Your task to perform on an android device: check battery use Image 0: 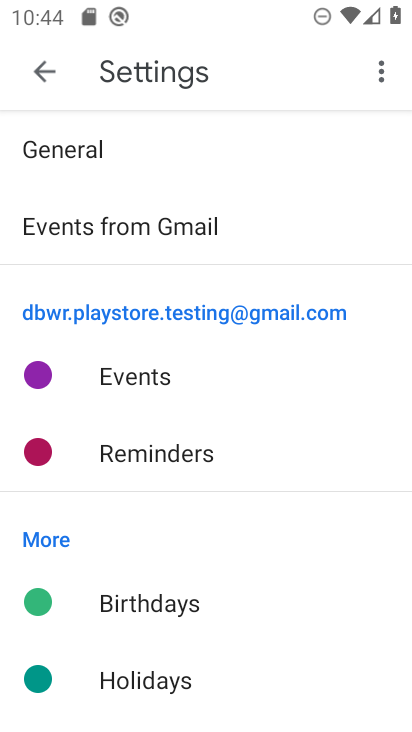
Step 0: press home button
Your task to perform on an android device: check battery use Image 1: 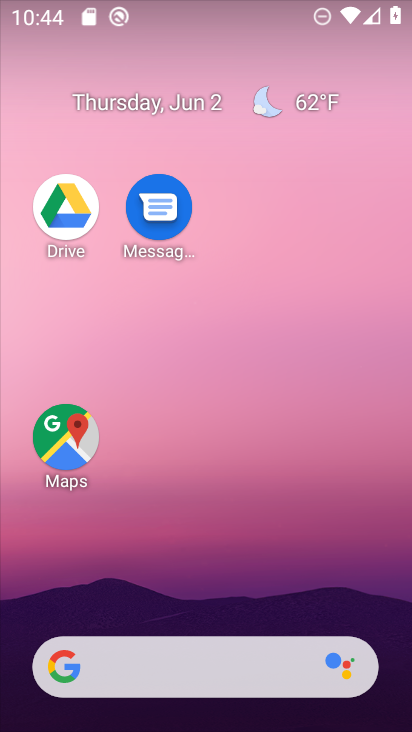
Step 1: drag from (210, 632) to (77, 15)
Your task to perform on an android device: check battery use Image 2: 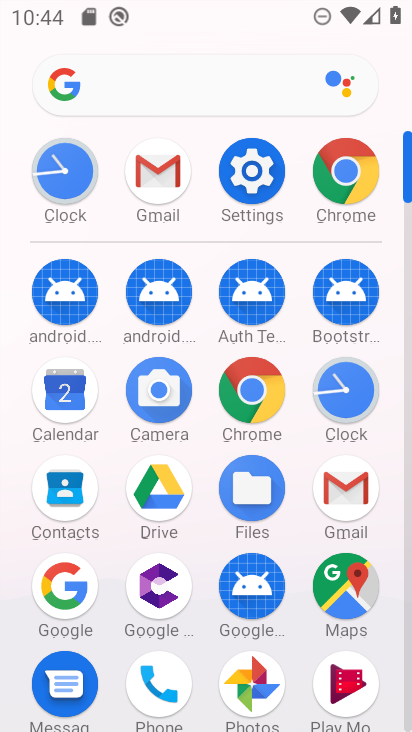
Step 2: click (227, 179)
Your task to perform on an android device: check battery use Image 3: 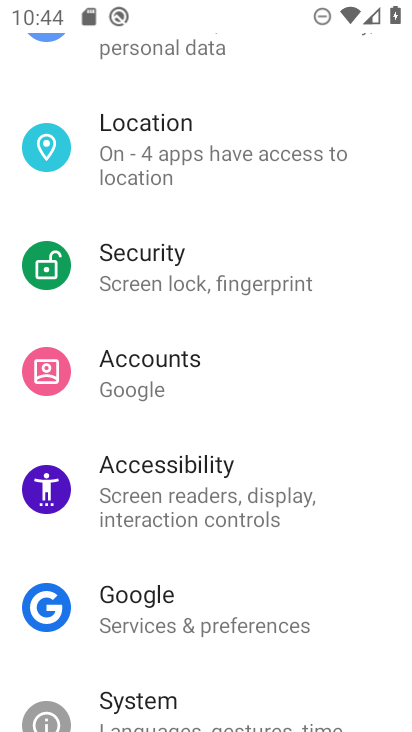
Step 3: drag from (219, 585) to (143, 131)
Your task to perform on an android device: check battery use Image 4: 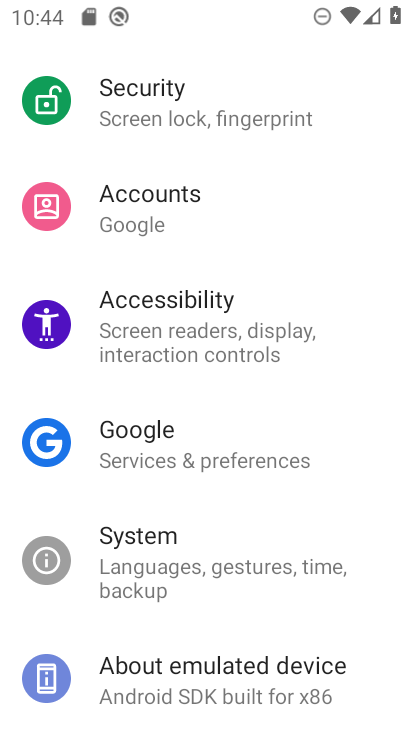
Step 4: drag from (155, 158) to (161, 677)
Your task to perform on an android device: check battery use Image 5: 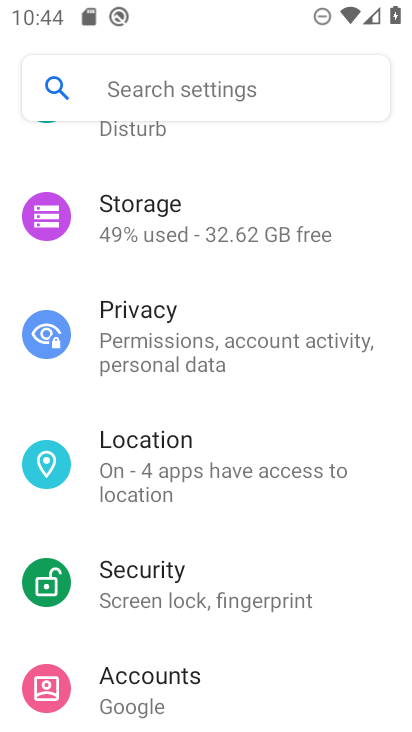
Step 5: drag from (168, 149) to (166, 548)
Your task to perform on an android device: check battery use Image 6: 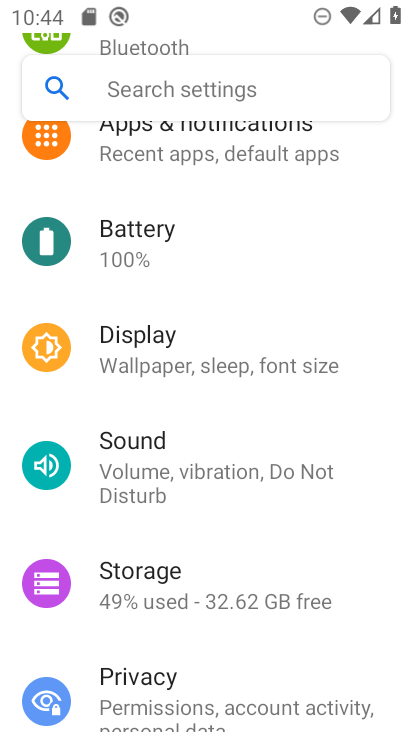
Step 6: click (156, 256)
Your task to perform on an android device: check battery use Image 7: 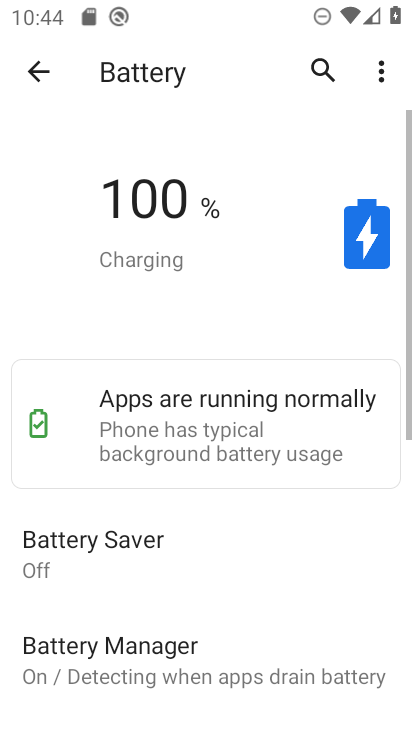
Step 7: click (381, 68)
Your task to perform on an android device: check battery use Image 8: 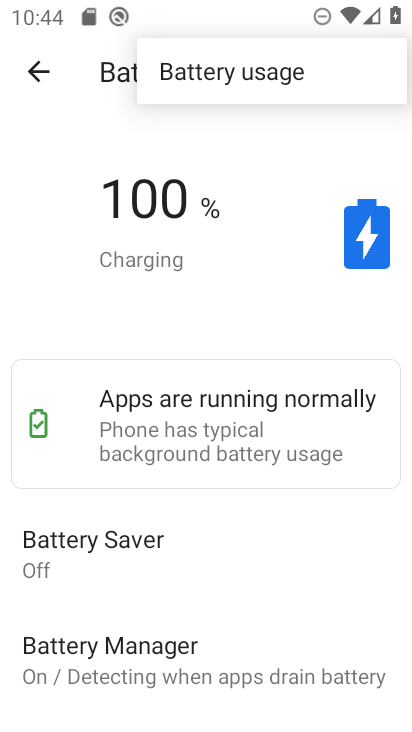
Step 8: click (310, 77)
Your task to perform on an android device: check battery use Image 9: 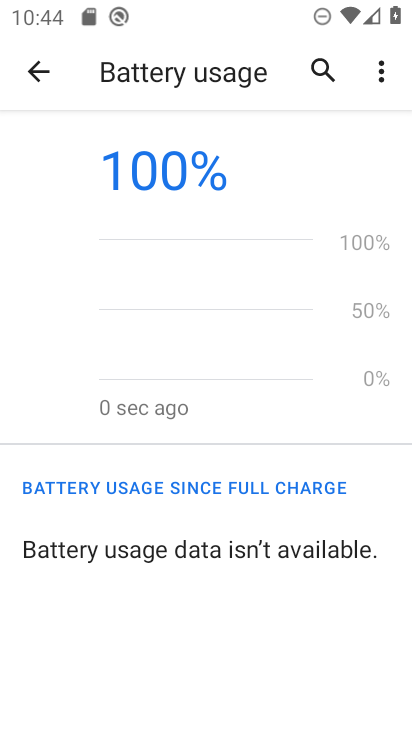
Step 9: task complete